Your task to perform on an android device: change the clock display to digital Image 0: 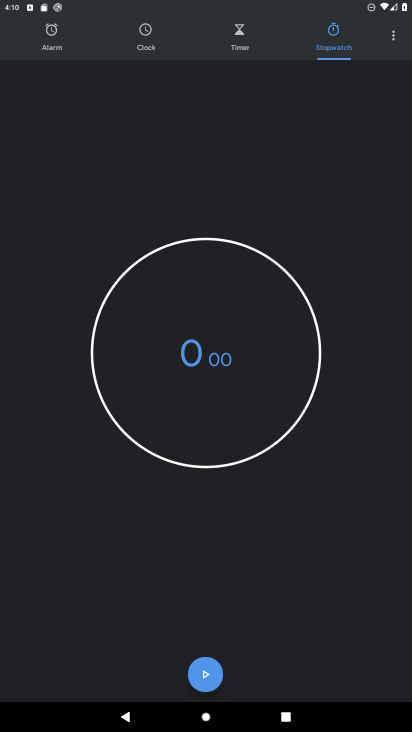
Step 0: click (399, 34)
Your task to perform on an android device: change the clock display to digital Image 1: 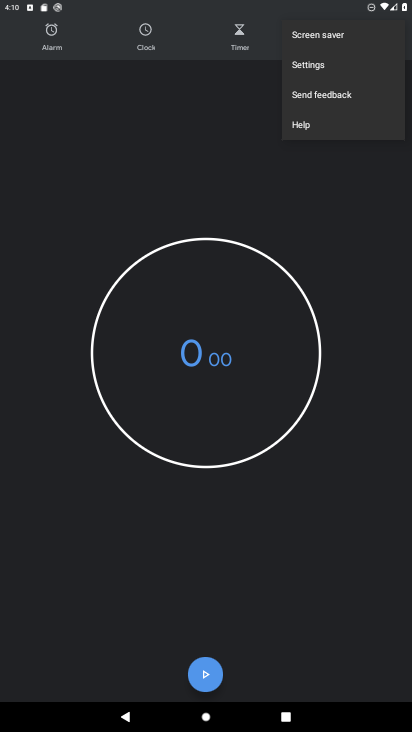
Step 1: click (352, 61)
Your task to perform on an android device: change the clock display to digital Image 2: 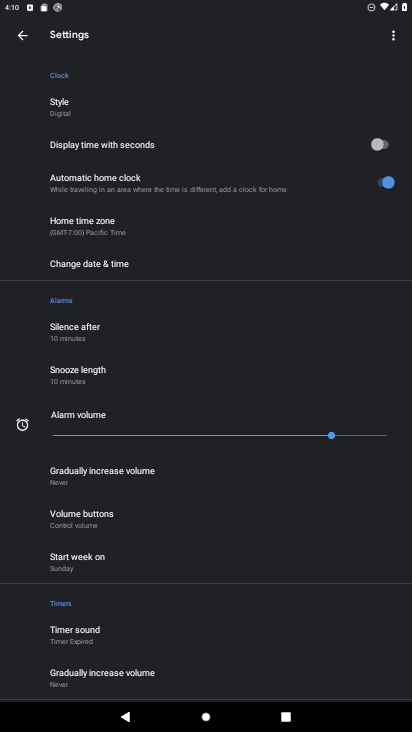
Step 2: click (74, 114)
Your task to perform on an android device: change the clock display to digital Image 3: 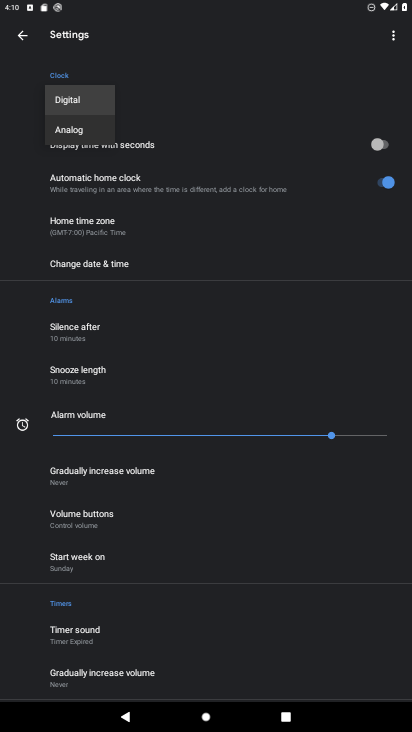
Step 3: task complete